Your task to perform on an android device: Add bose soundsport free to the cart on costco, then select checkout. Image 0: 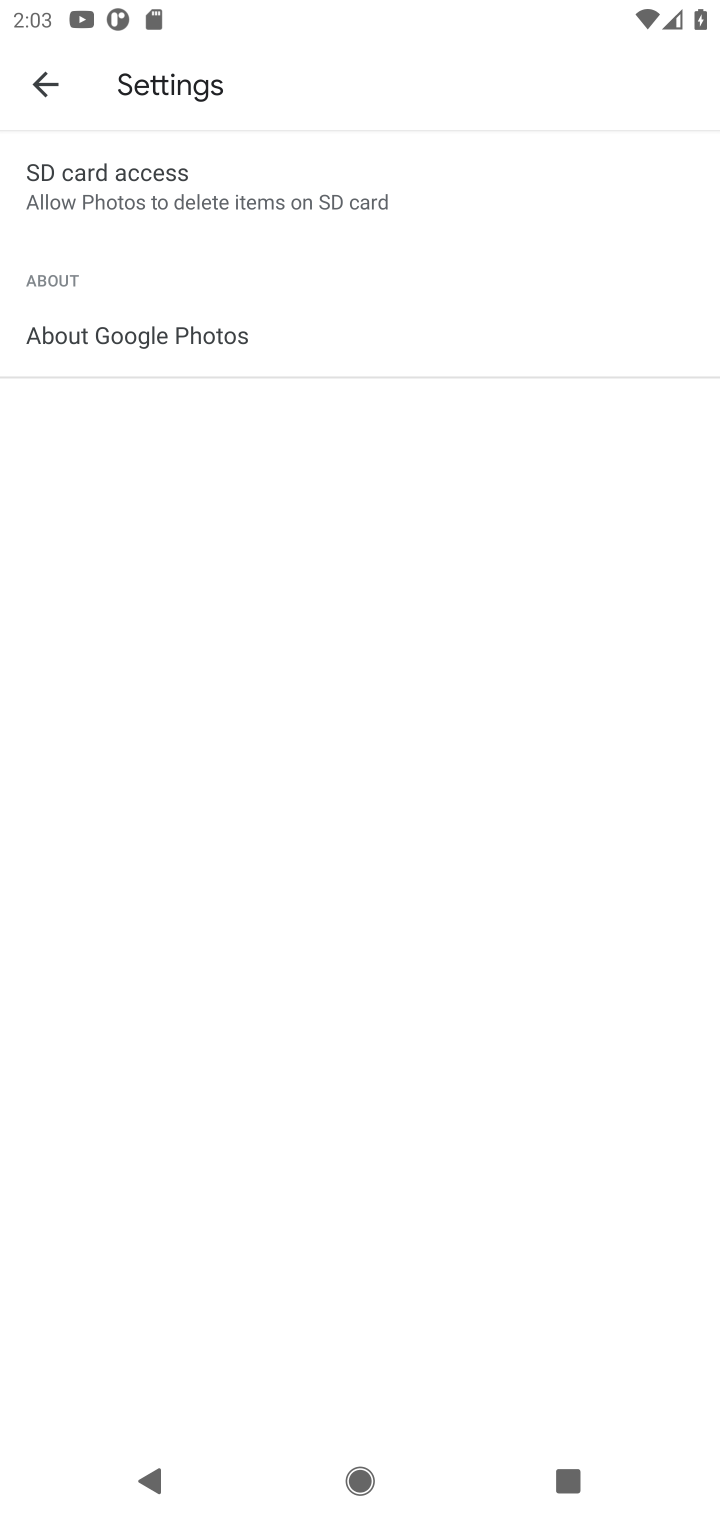
Step 0: press home button
Your task to perform on an android device: Add bose soundsport free to the cart on costco, then select checkout. Image 1: 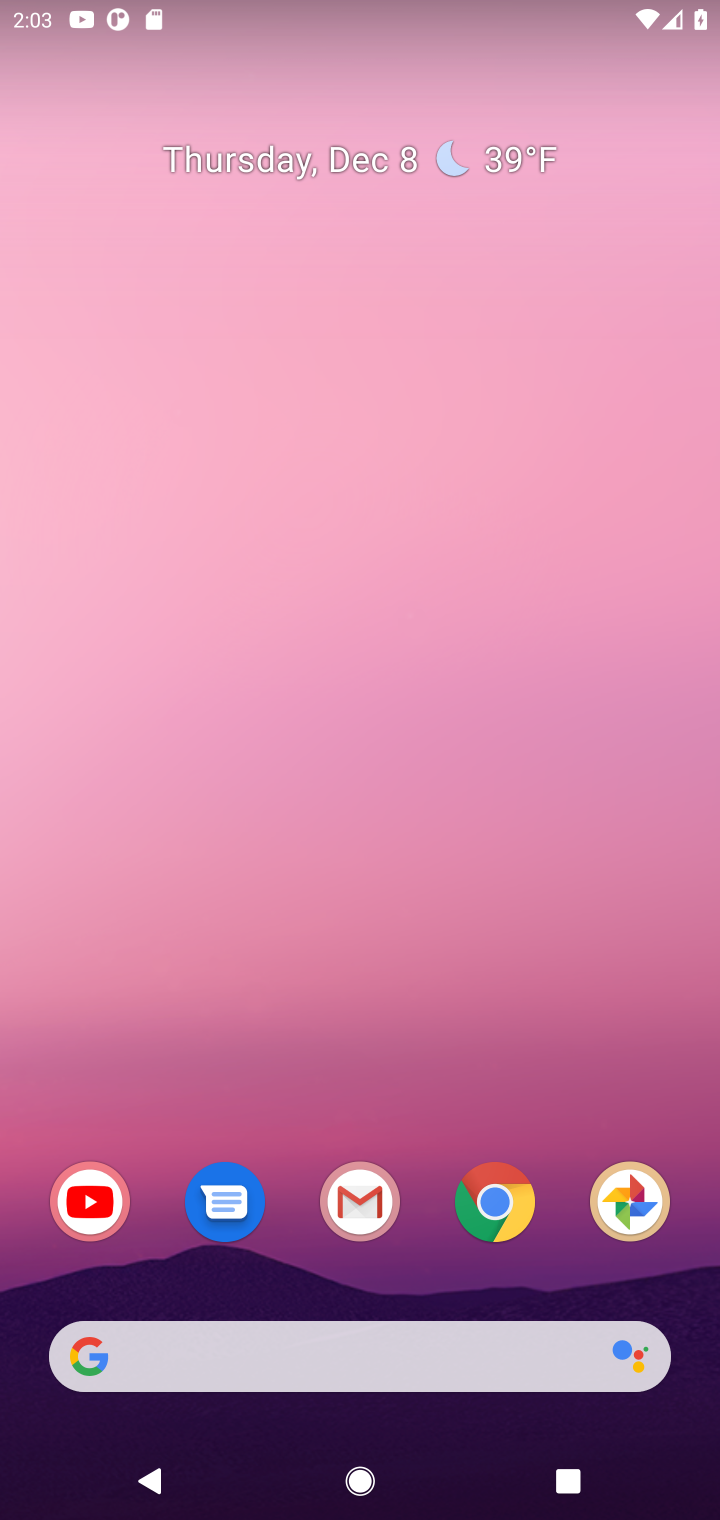
Step 1: click (503, 1192)
Your task to perform on an android device: Add bose soundsport free to the cart on costco, then select checkout. Image 2: 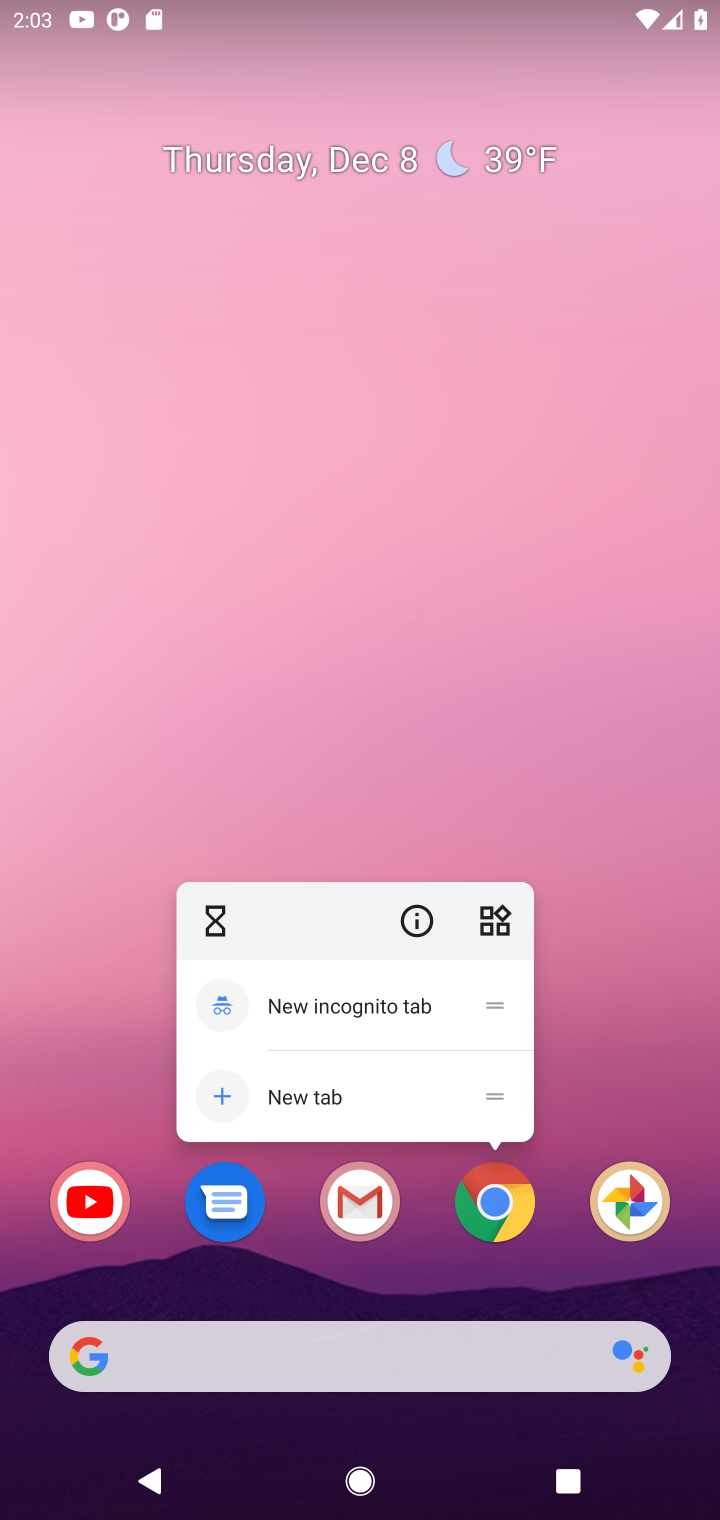
Step 2: click (503, 1192)
Your task to perform on an android device: Add bose soundsport free to the cart on costco, then select checkout. Image 3: 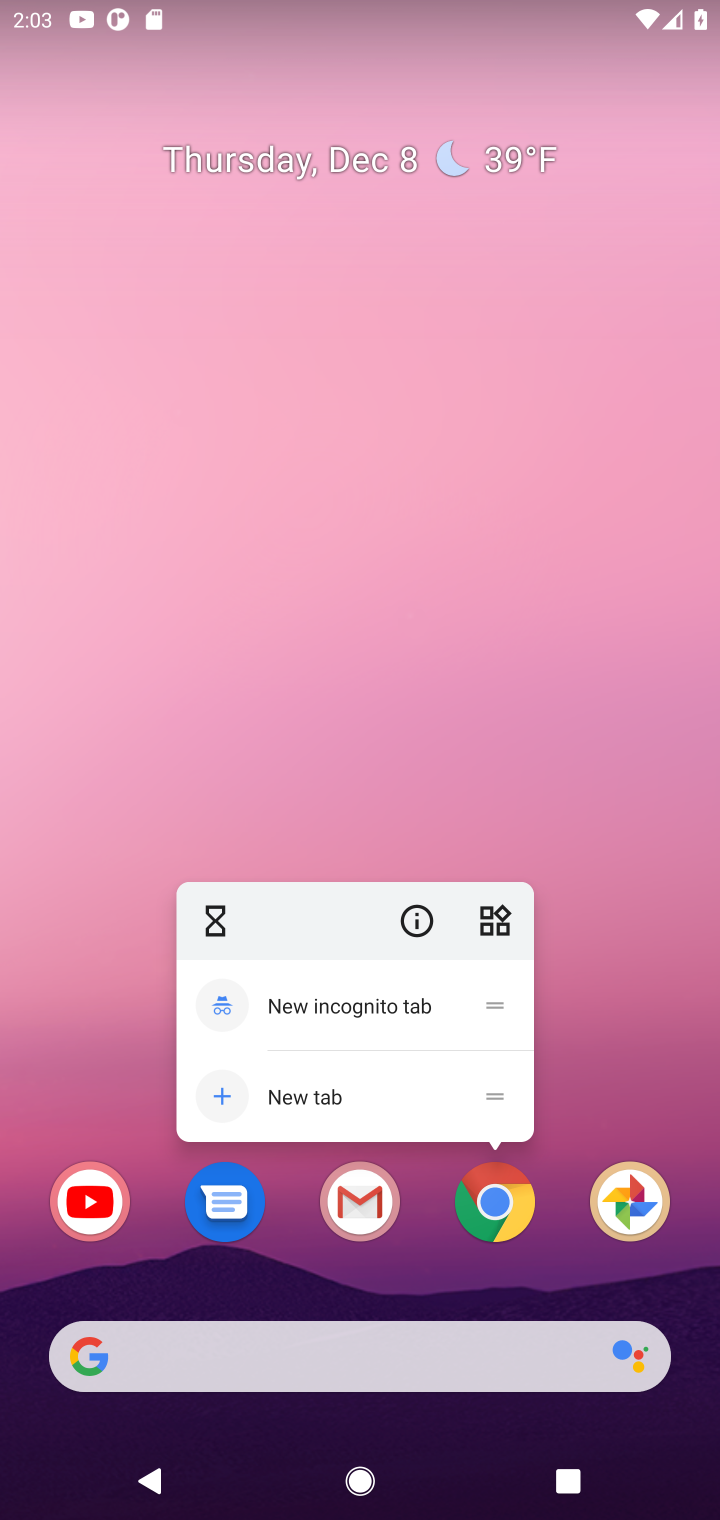
Step 3: click (503, 1192)
Your task to perform on an android device: Add bose soundsport free to the cart on costco, then select checkout. Image 4: 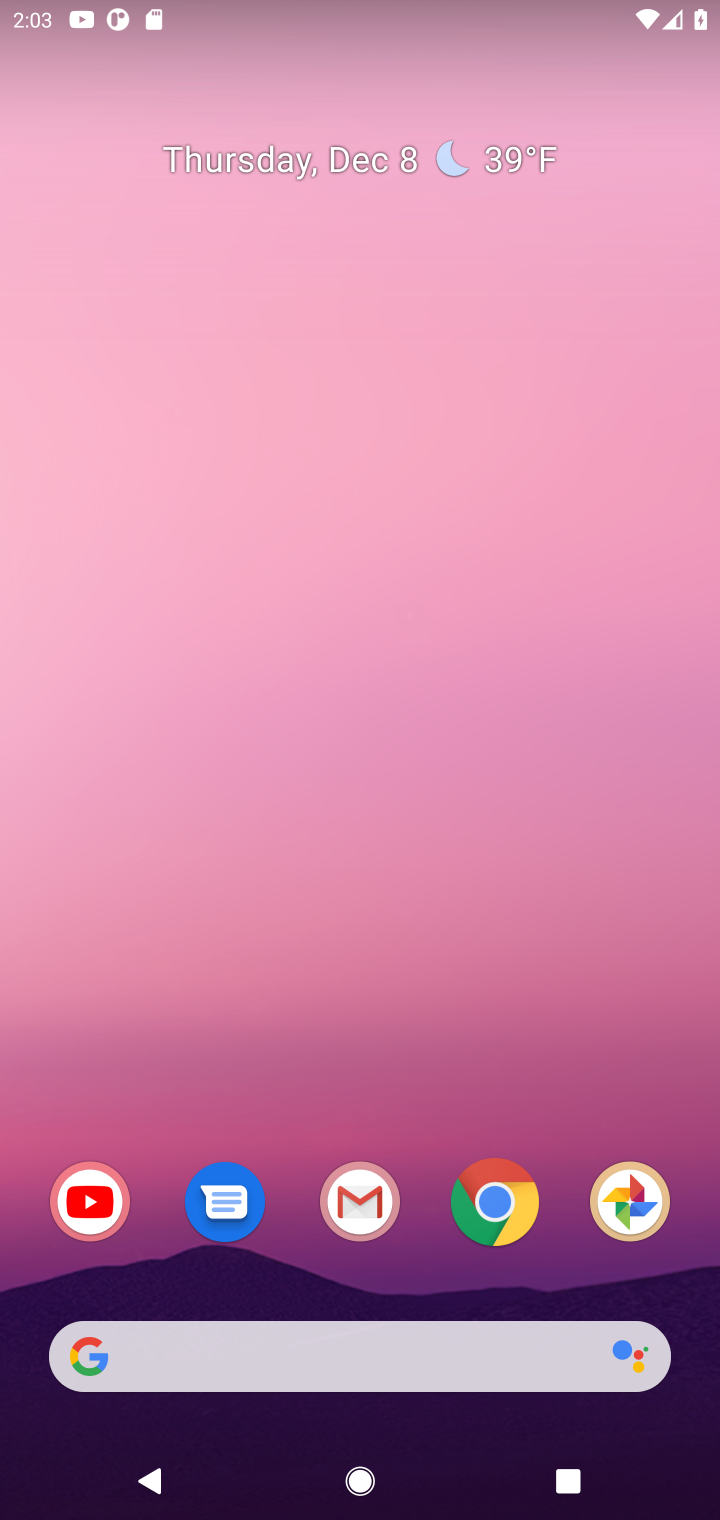
Step 4: click (503, 1192)
Your task to perform on an android device: Add bose soundsport free to the cart on costco, then select checkout. Image 5: 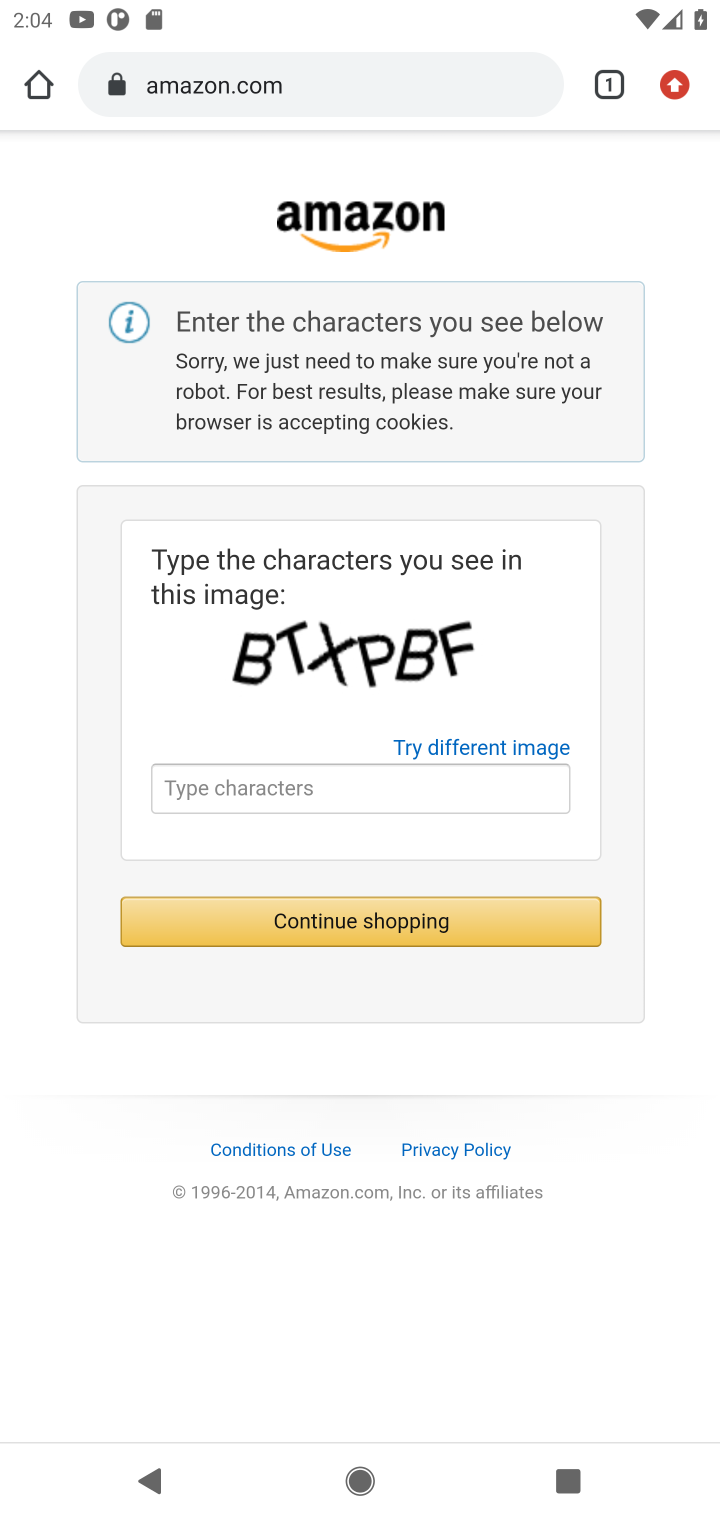
Step 5: click (400, 67)
Your task to perform on an android device: Add bose soundsport free to the cart on costco, then select checkout. Image 6: 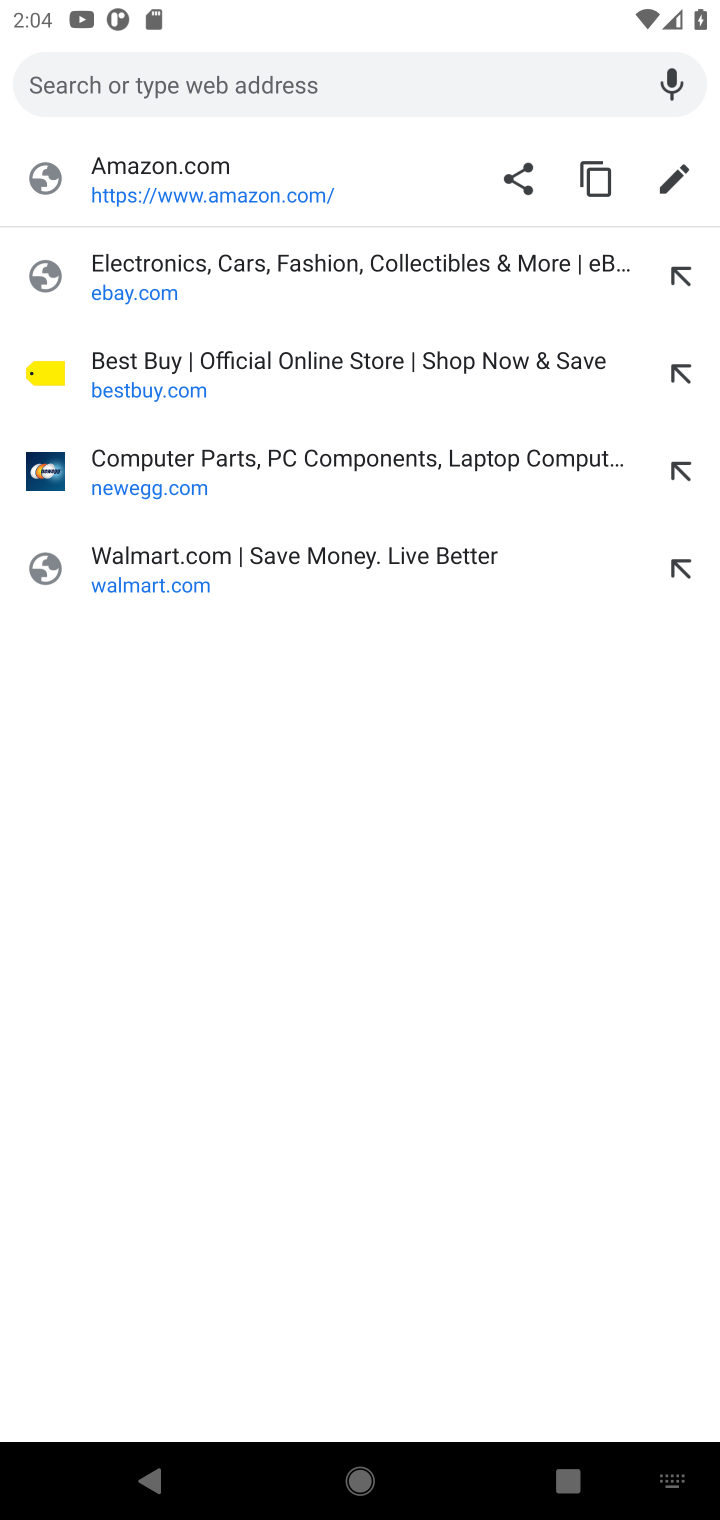
Step 6: type "costco"
Your task to perform on an android device: Add bose soundsport free to the cart on costco, then select checkout. Image 7: 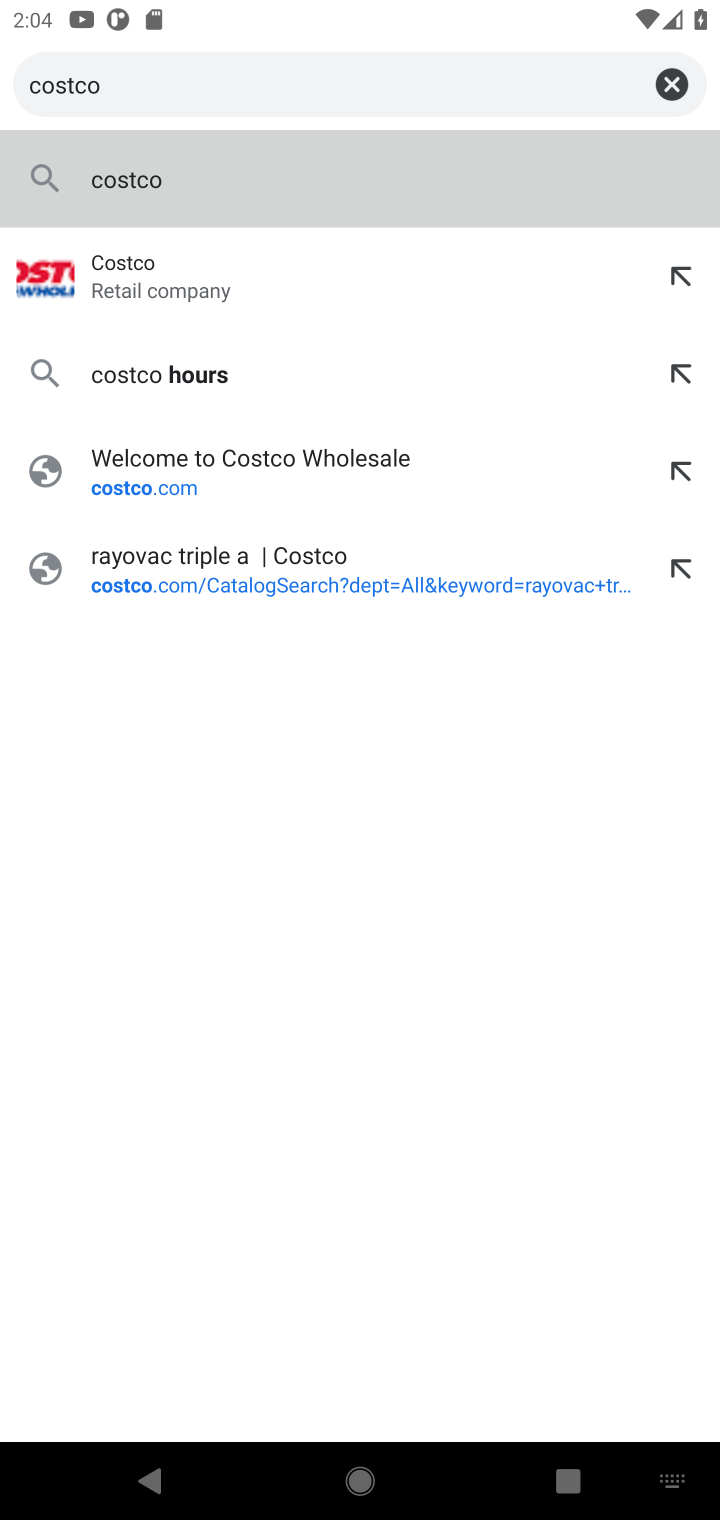
Step 7: press enter
Your task to perform on an android device: Add bose soundsport free to the cart on costco, then select checkout. Image 8: 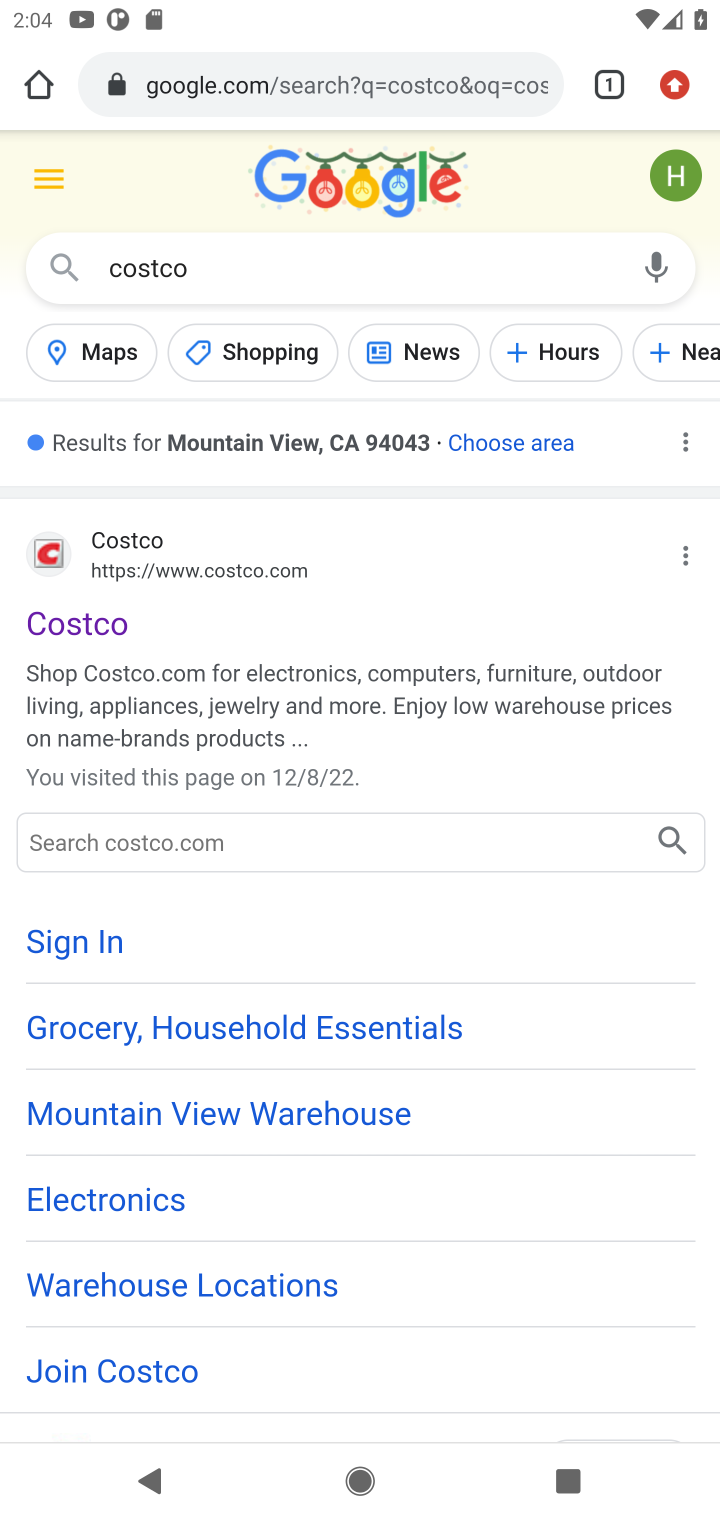
Step 8: click (271, 558)
Your task to perform on an android device: Add bose soundsport free to the cart on costco, then select checkout. Image 9: 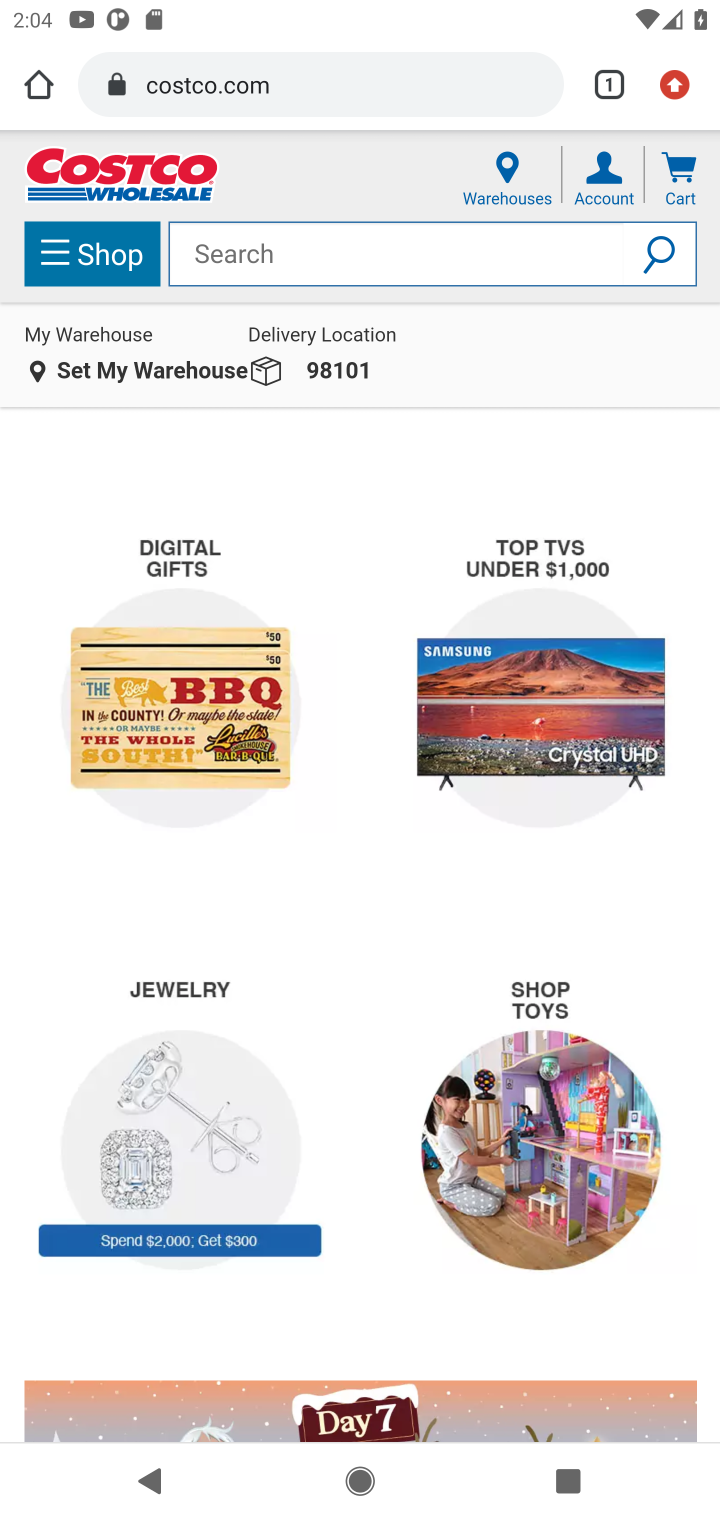
Step 9: click (407, 253)
Your task to perform on an android device: Add bose soundsport free to the cart on costco, then select checkout. Image 10: 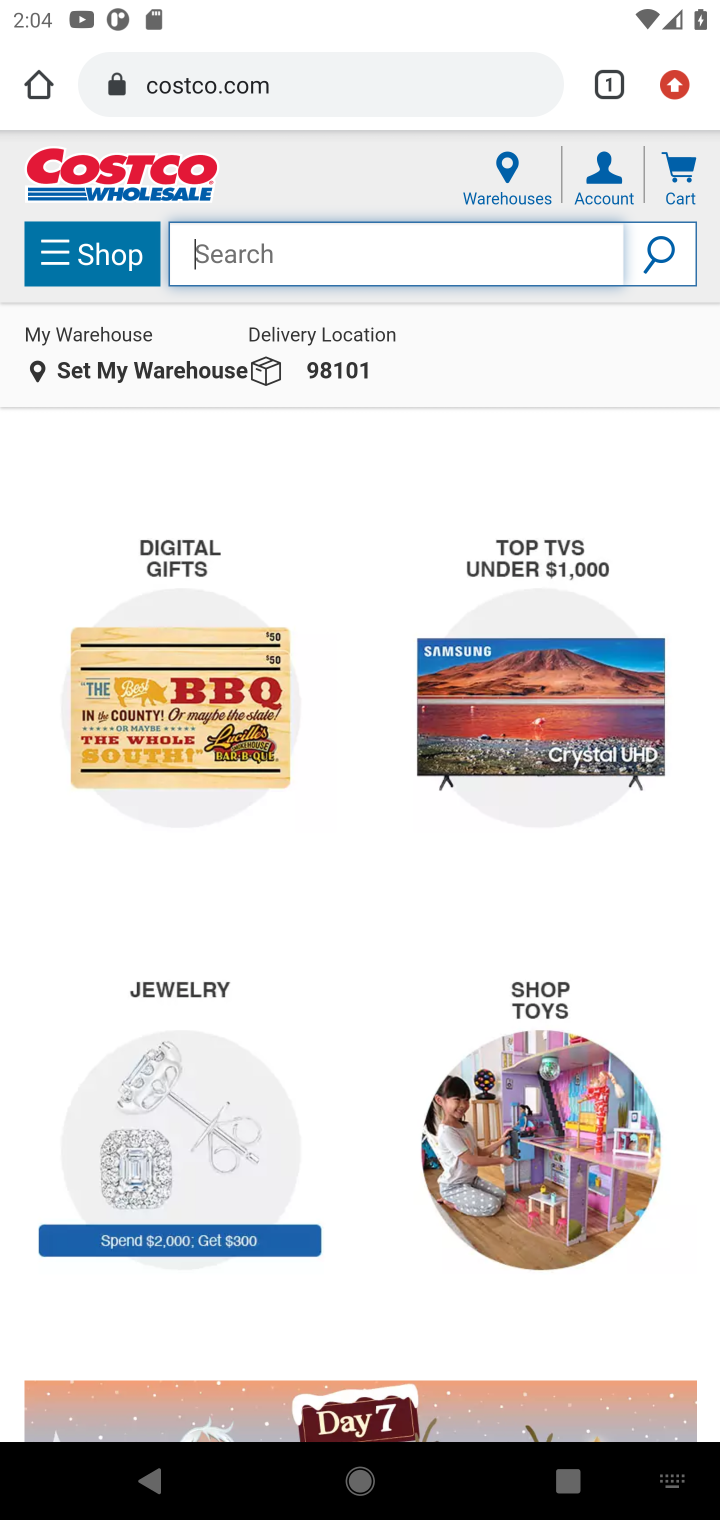
Step 10: type "bose soundsport free"
Your task to perform on an android device: Add bose soundsport free to the cart on costco, then select checkout. Image 11: 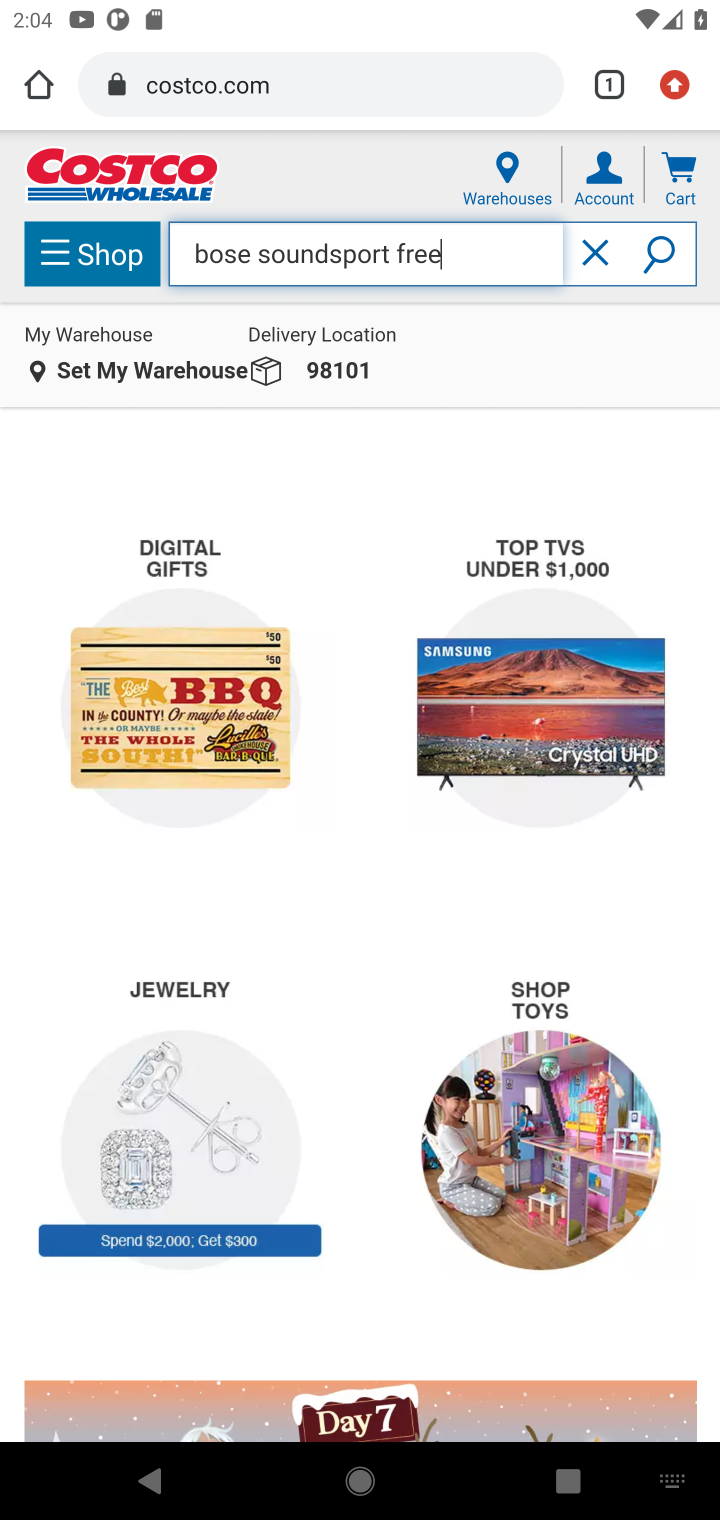
Step 11: press enter
Your task to perform on an android device: Add bose soundsport free to the cart on costco, then select checkout. Image 12: 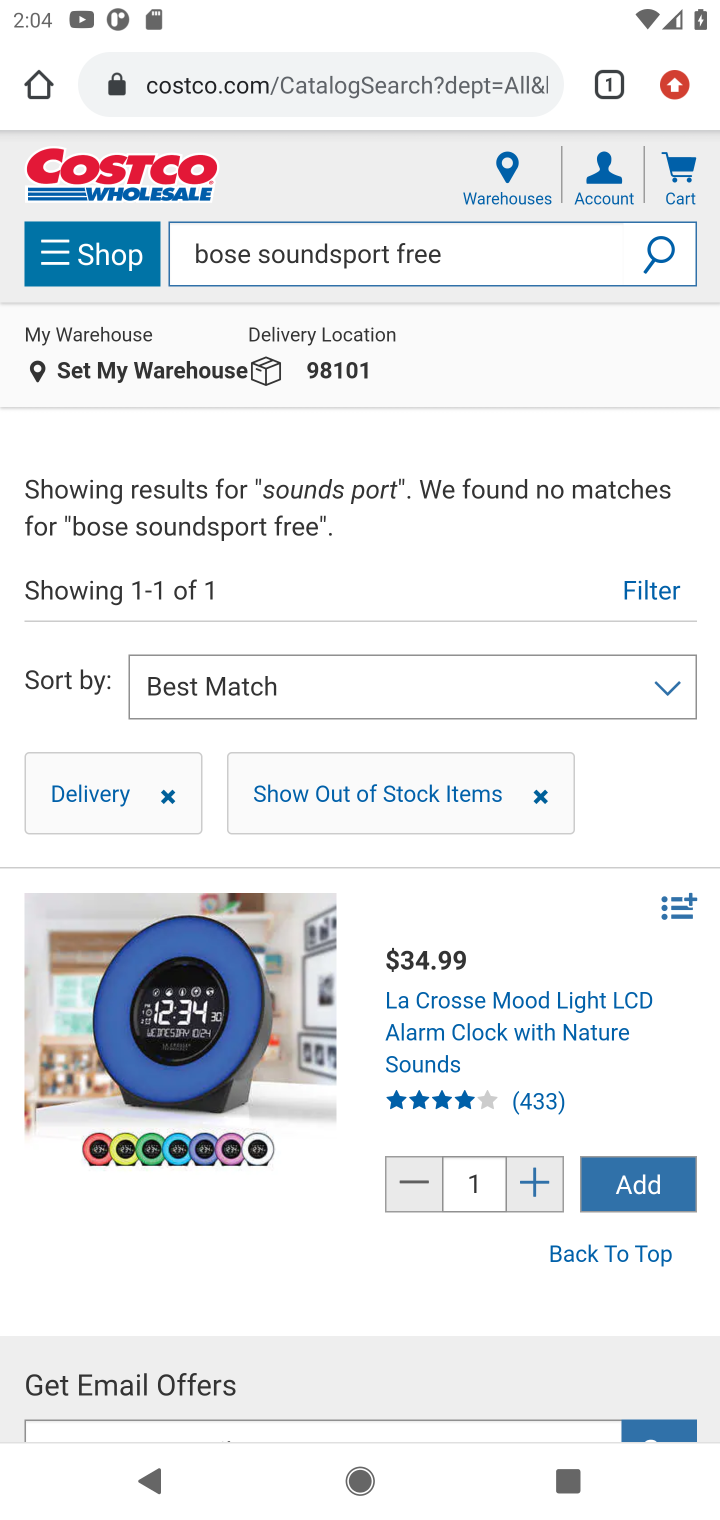
Step 12: task complete